Your task to perform on an android device: Go to eBay Image 0: 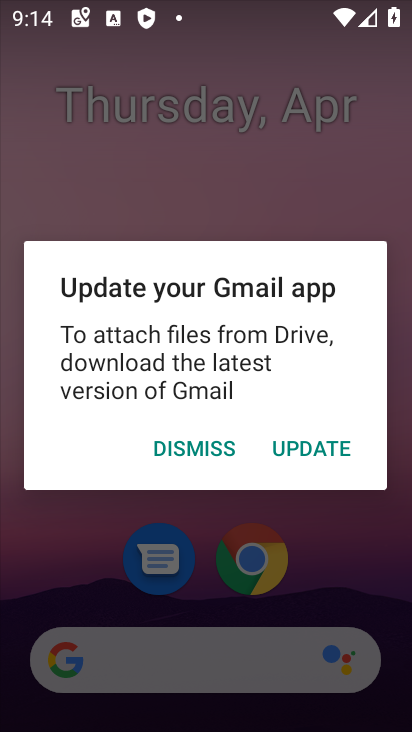
Step 0: press home button
Your task to perform on an android device: Go to eBay Image 1: 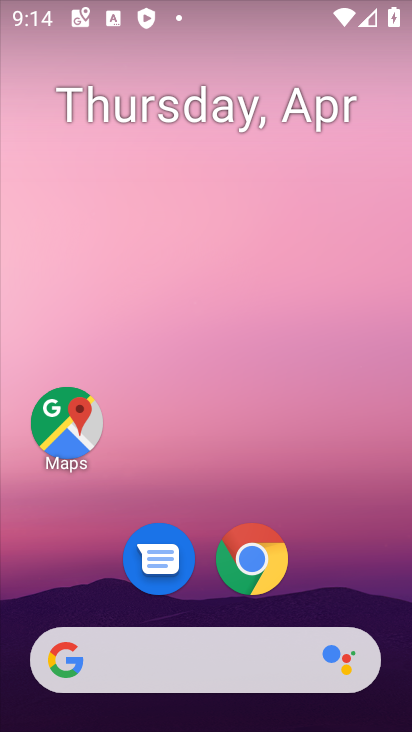
Step 1: click (230, 669)
Your task to perform on an android device: Go to eBay Image 2: 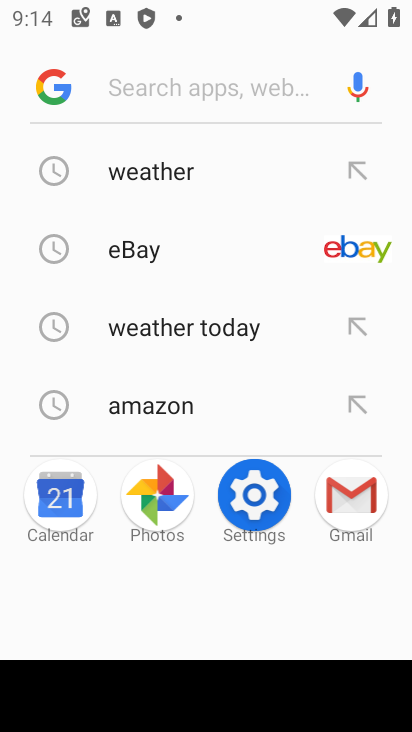
Step 2: click (191, 240)
Your task to perform on an android device: Go to eBay Image 3: 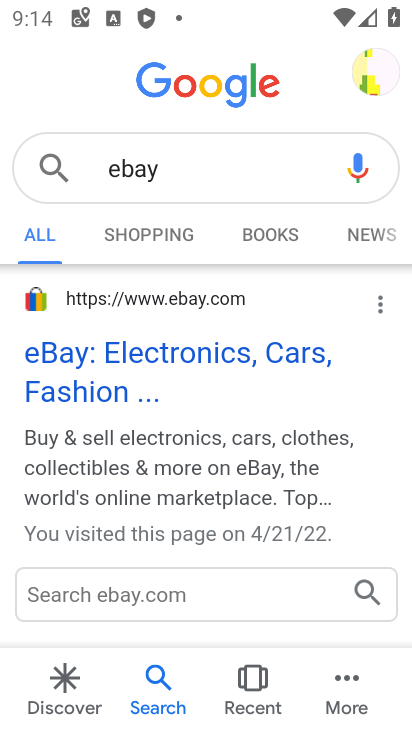
Step 3: click (224, 301)
Your task to perform on an android device: Go to eBay Image 4: 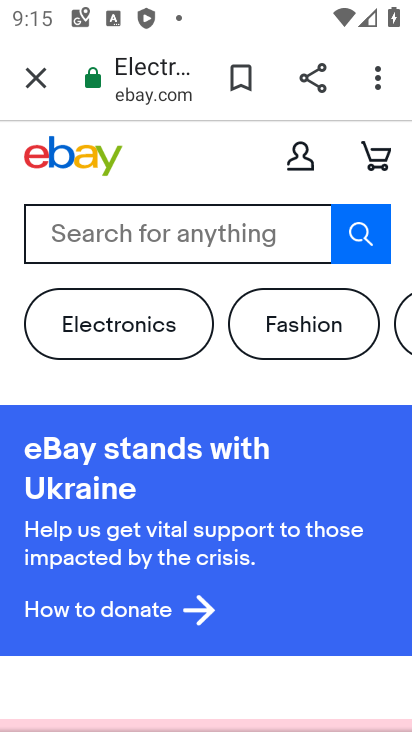
Step 4: task complete